Your task to perform on an android device: What's the weather today? Image 0: 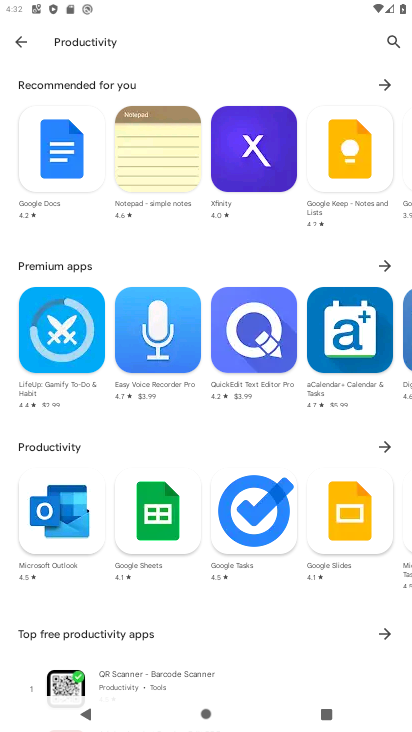
Step 0: press home button
Your task to perform on an android device: What's the weather today? Image 1: 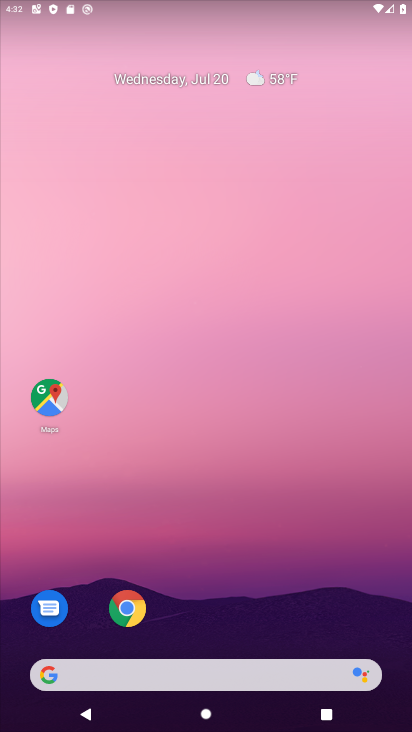
Step 1: drag from (194, 640) to (138, 145)
Your task to perform on an android device: What's the weather today? Image 2: 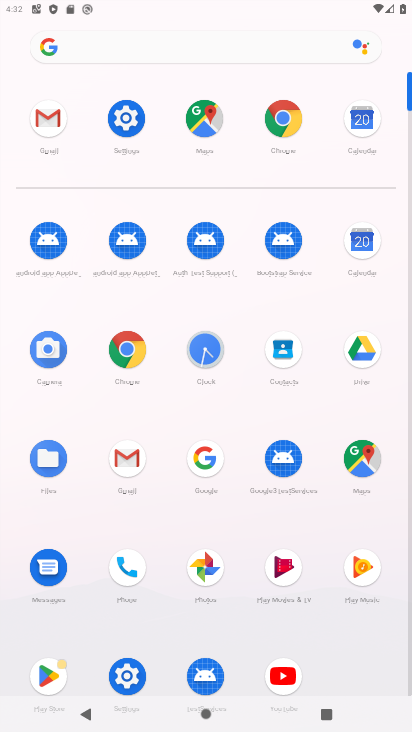
Step 2: click (216, 468)
Your task to perform on an android device: What's the weather today? Image 3: 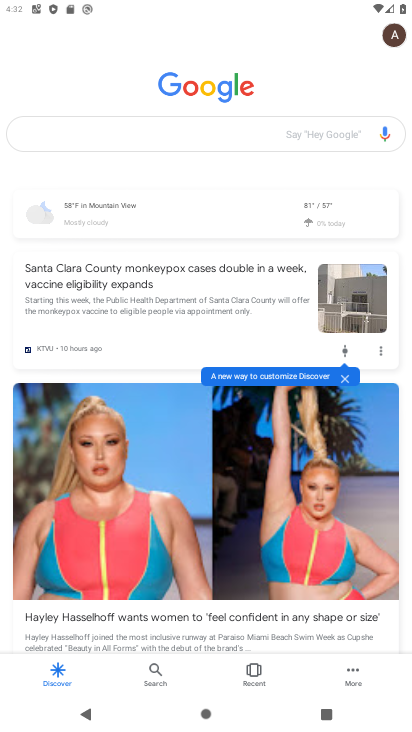
Step 3: click (154, 134)
Your task to perform on an android device: What's the weather today? Image 4: 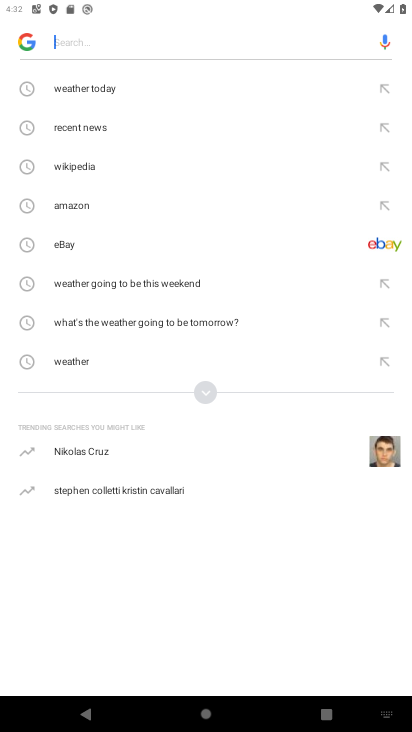
Step 4: click (82, 92)
Your task to perform on an android device: What's the weather today? Image 5: 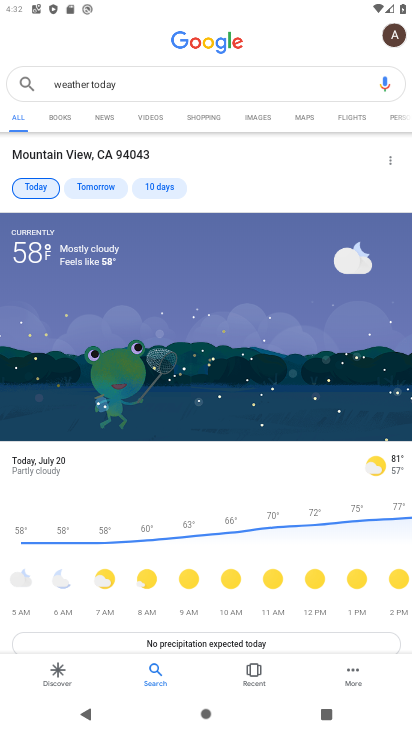
Step 5: task complete